Your task to perform on an android device: Go to Amazon Image 0: 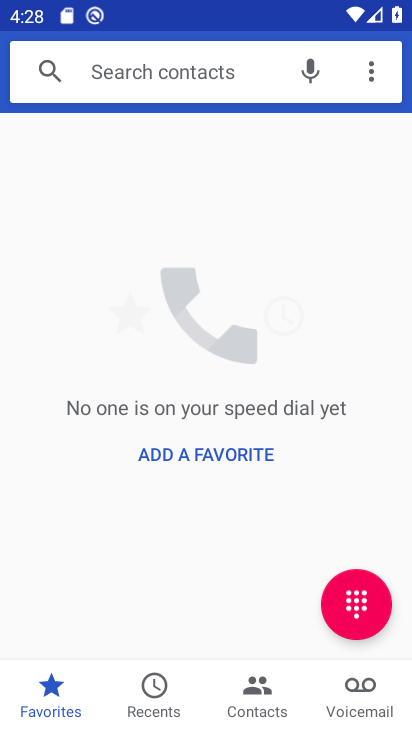
Step 0: press home button
Your task to perform on an android device: Go to Amazon Image 1: 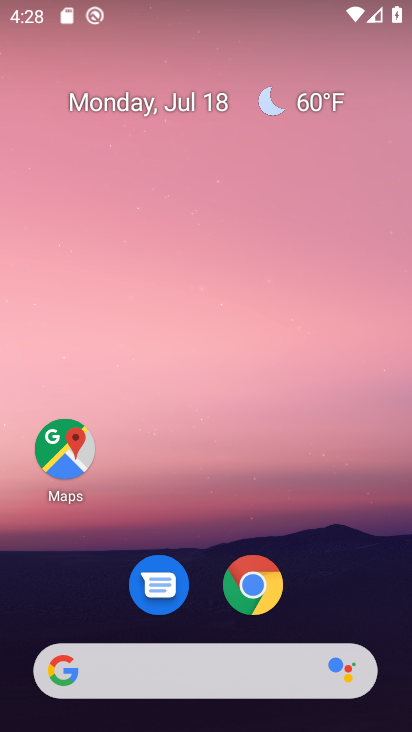
Step 1: drag from (331, 578) to (261, 50)
Your task to perform on an android device: Go to Amazon Image 2: 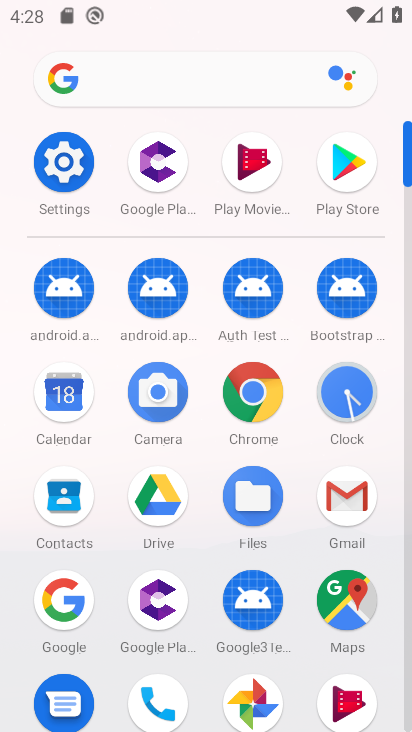
Step 2: click (249, 397)
Your task to perform on an android device: Go to Amazon Image 3: 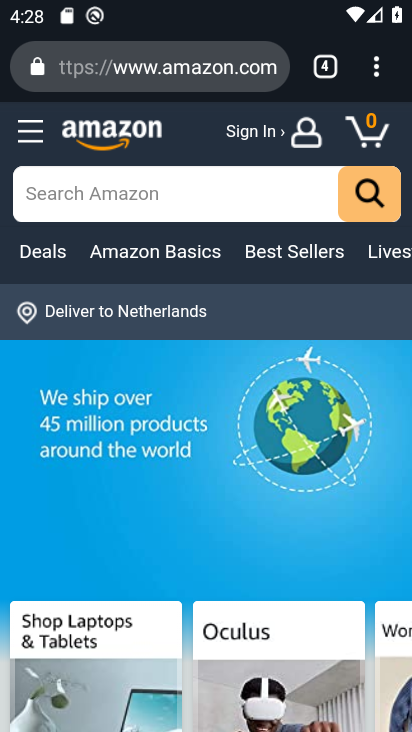
Step 3: task complete